Your task to perform on an android device: Go to Android settings Image 0: 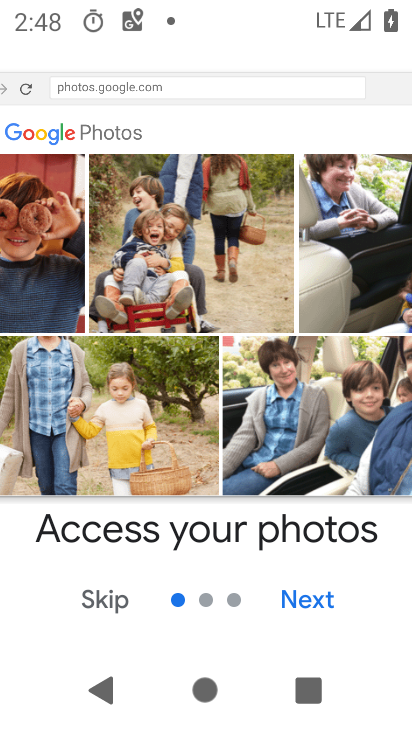
Step 0: press home button
Your task to perform on an android device: Go to Android settings Image 1: 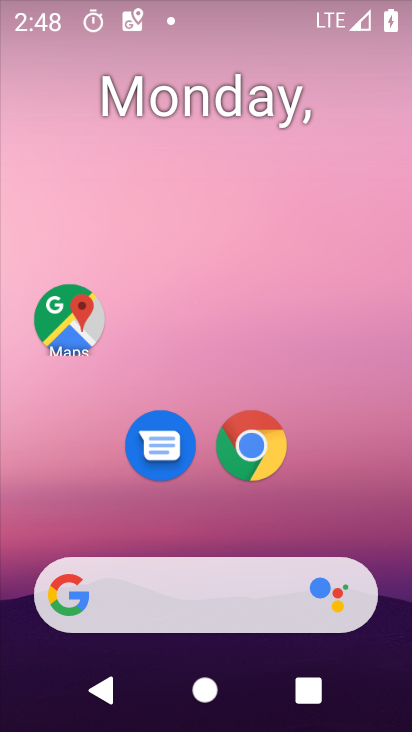
Step 1: drag from (189, 608) to (187, 60)
Your task to perform on an android device: Go to Android settings Image 2: 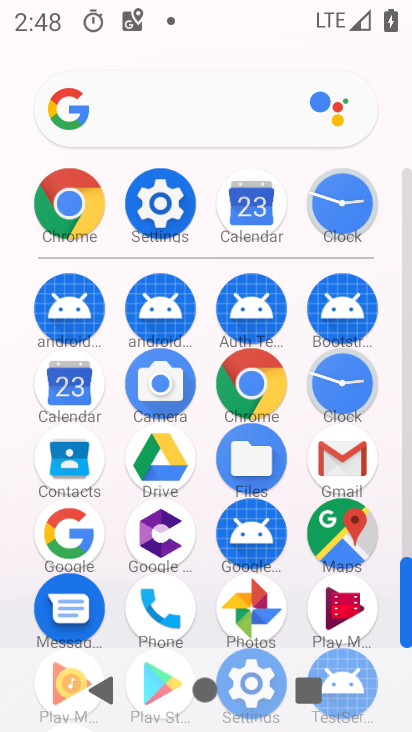
Step 2: click (174, 192)
Your task to perform on an android device: Go to Android settings Image 3: 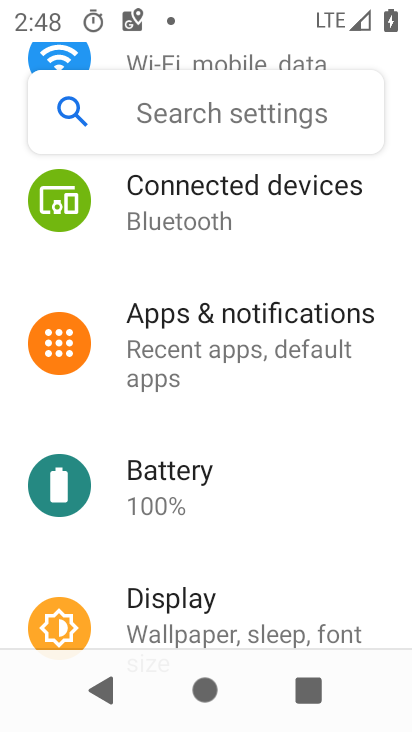
Step 3: task complete